Your task to perform on an android device: Search for Mexican restaurants on Maps Image 0: 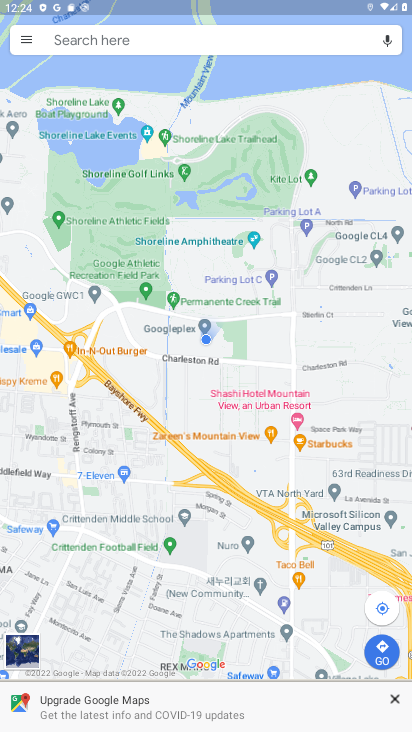
Step 0: drag from (203, 5) to (287, 7)
Your task to perform on an android device: Search for Mexican restaurants on Maps Image 1: 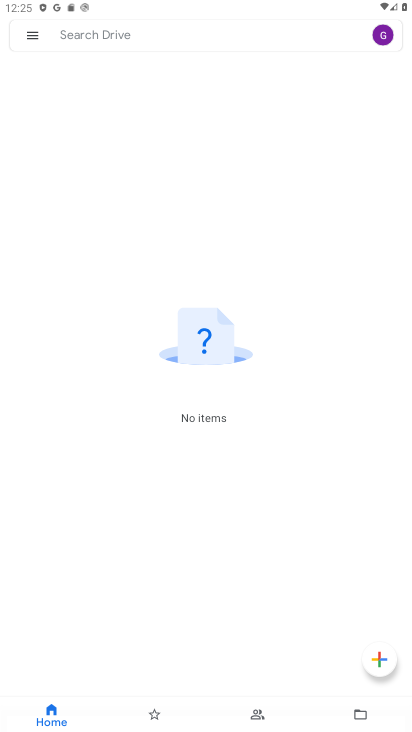
Step 1: press home button
Your task to perform on an android device: Search for Mexican restaurants on Maps Image 2: 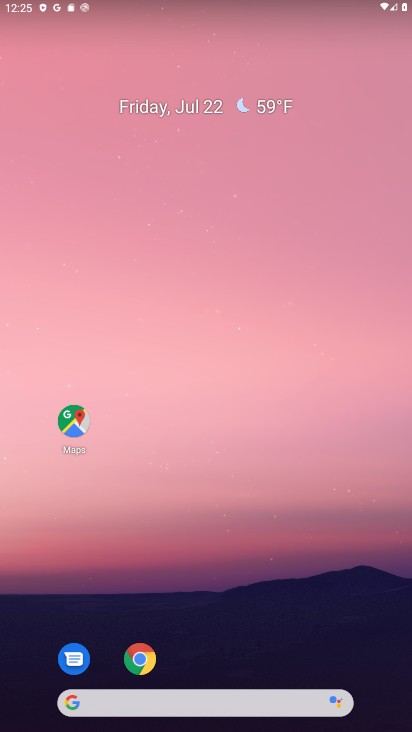
Step 2: drag from (235, 572) to (219, 2)
Your task to perform on an android device: Search for Mexican restaurants on Maps Image 3: 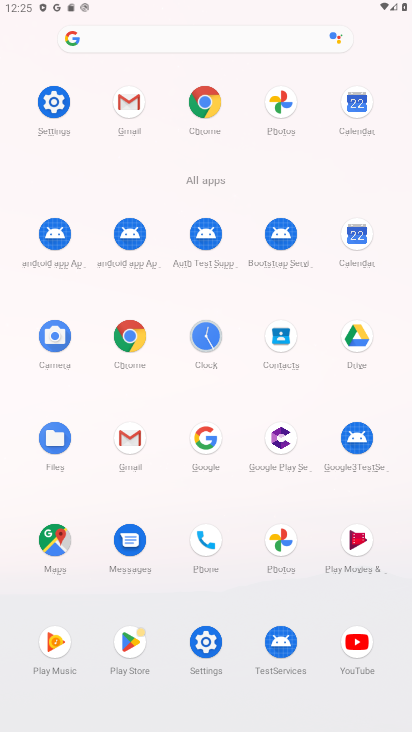
Step 3: click (51, 544)
Your task to perform on an android device: Search for Mexican restaurants on Maps Image 4: 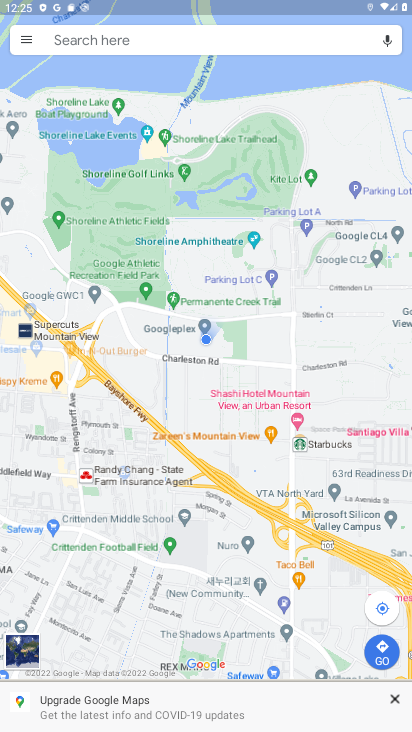
Step 4: click (113, 45)
Your task to perform on an android device: Search for Mexican restaurants on Maps Image 5: 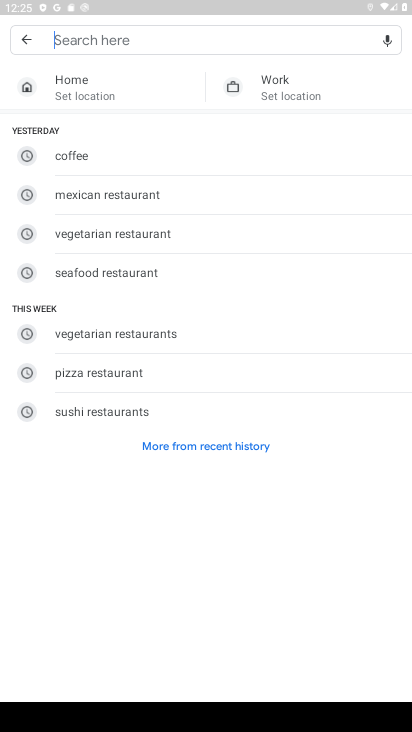
Step 5: click (118, 194)
Your task to perform on an android device: Search for Mexican restaurants on Maps Image 6: 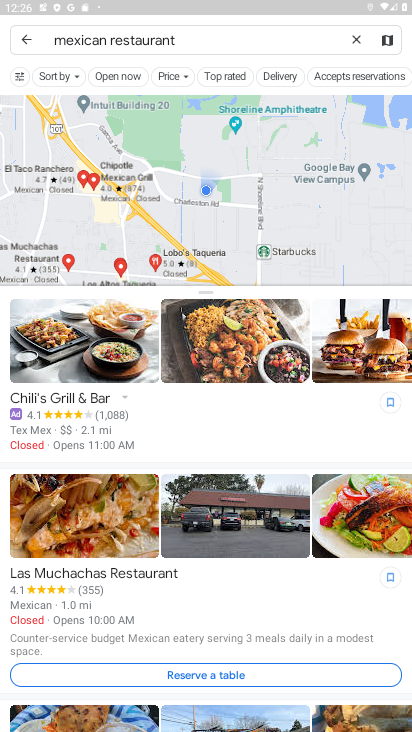
Step 6: task complete